Your task to perform on an android device: show emergency info Image 0: 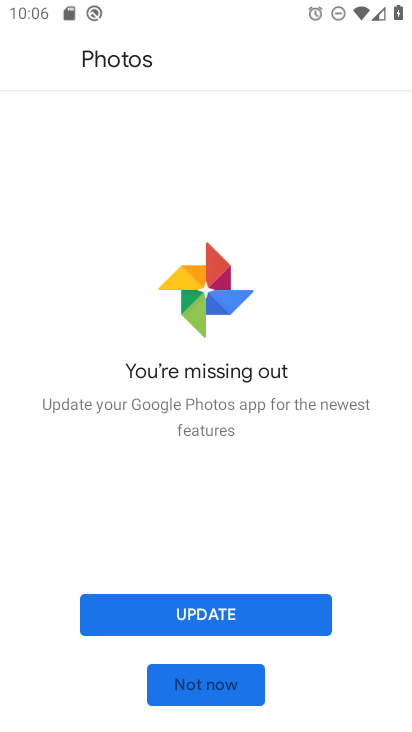
Step 0: press home button
Your task to perform on an android device: show emergency info Image 1: 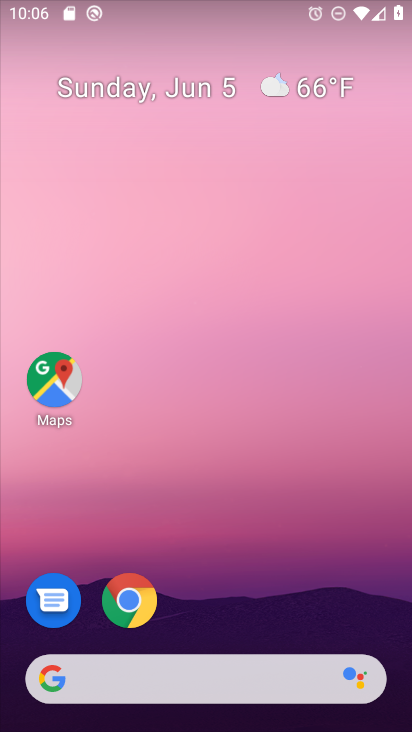
Step 1: drag from (397, 607) to (363, 67)
Your task to perform on an android device: show emergency info Image 2: 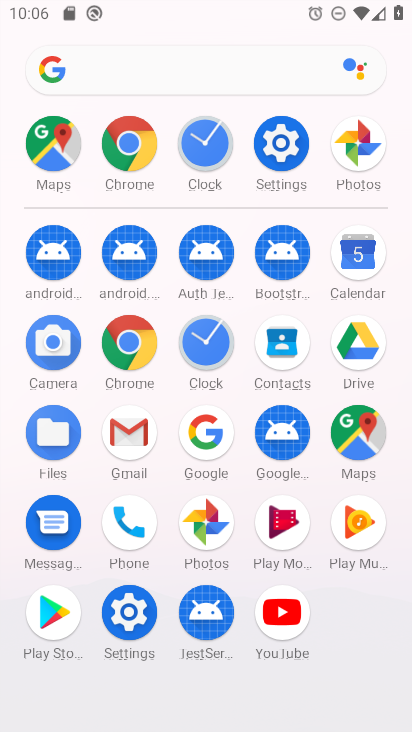
Step 2: click (133, 608)
Your task to perform on an android device: show emergency info Image 3: 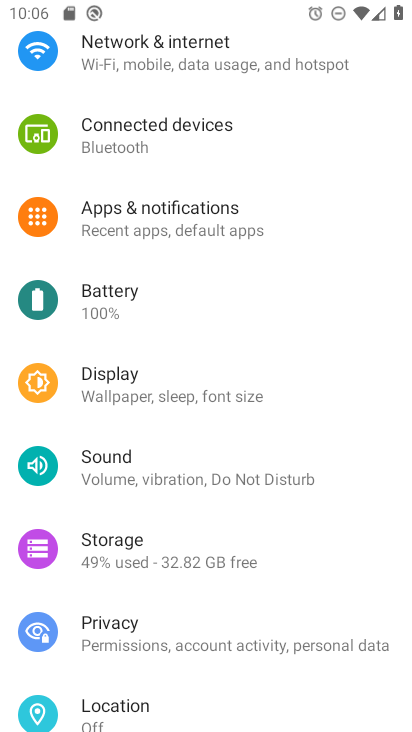
Step 3: drag from (171, 645) to (251, 84)
Your task to perform on an android device: show emergency info Image 4: 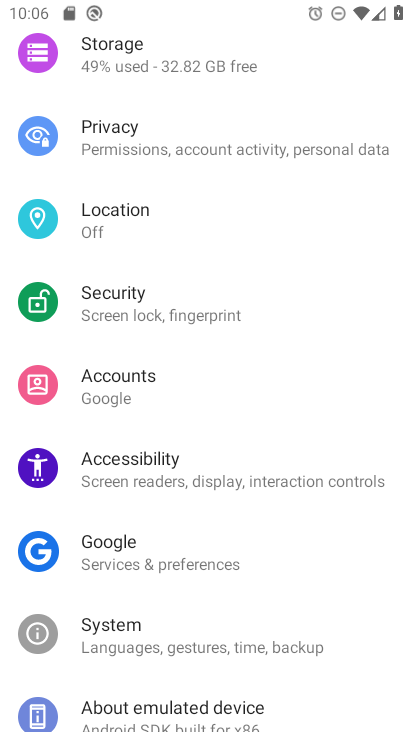
Step 4: drag from (144, 610) to (202, 117)
Your task to perform on an android device: show emergency info Image 5: 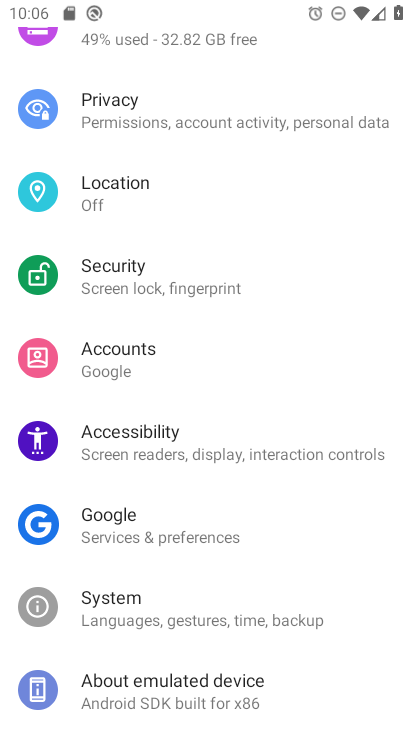
Step 5: click (160, 682)
Your task to perform on an android device: show emergency info Image 6: 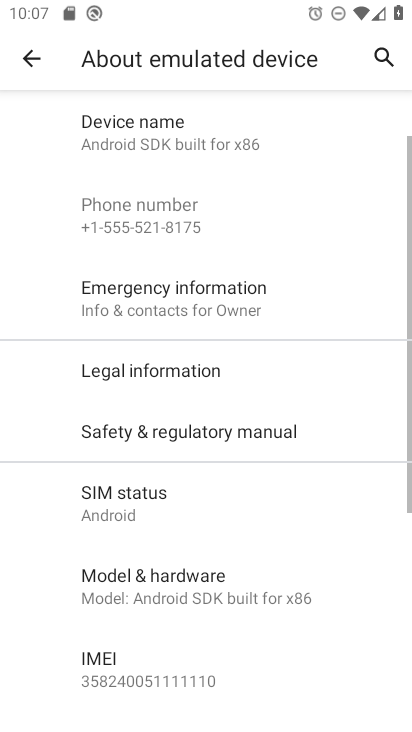
Step 6: click (212, 285)
Your task to perform on an android device: show emergency info Image 7: 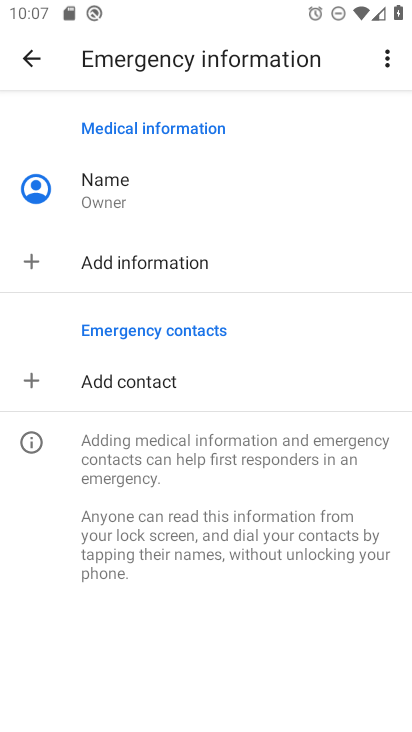
Step 7: task complete